Your task to perform on an android device: Search for seafood restaurants on Google Maps Image 0: 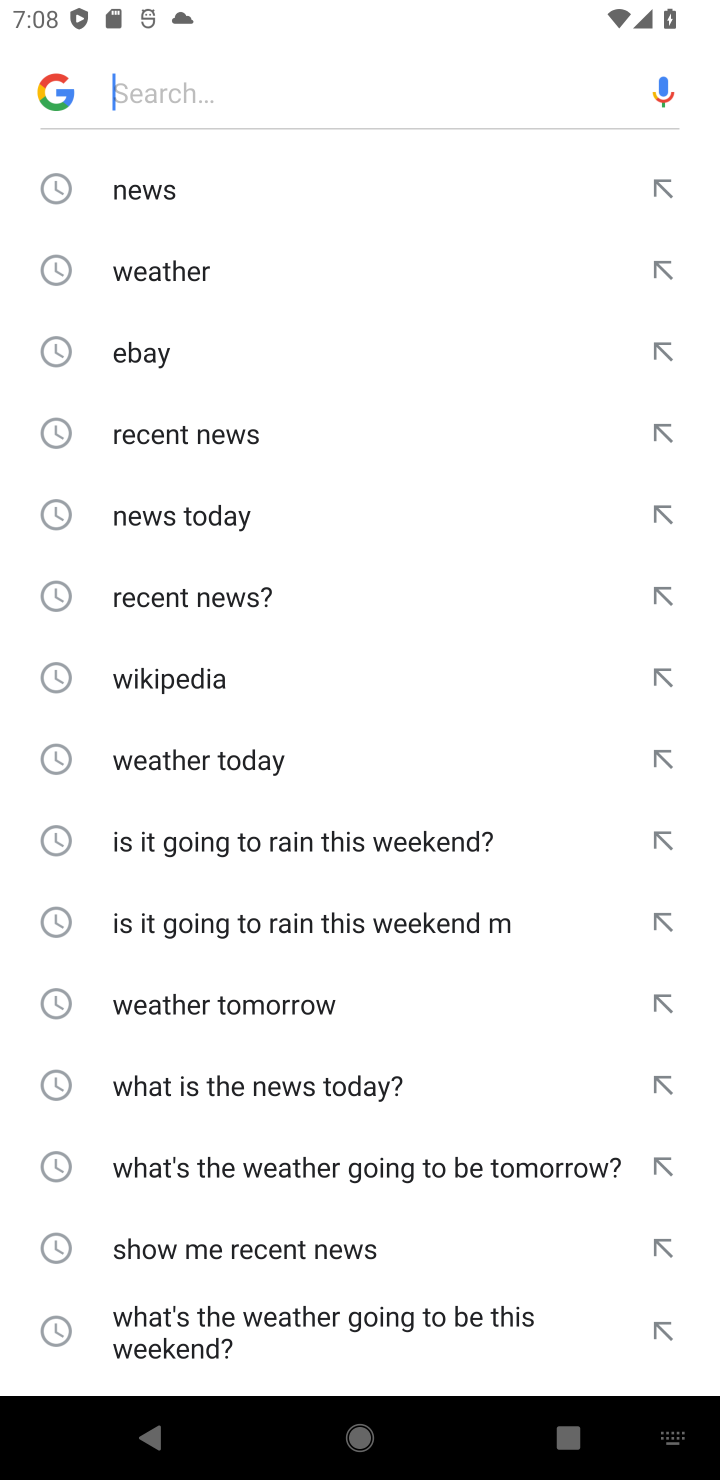
Step 0: press home button
Your task to perform on an android device: Search for seafood restaurants on Google Maps Image 1: 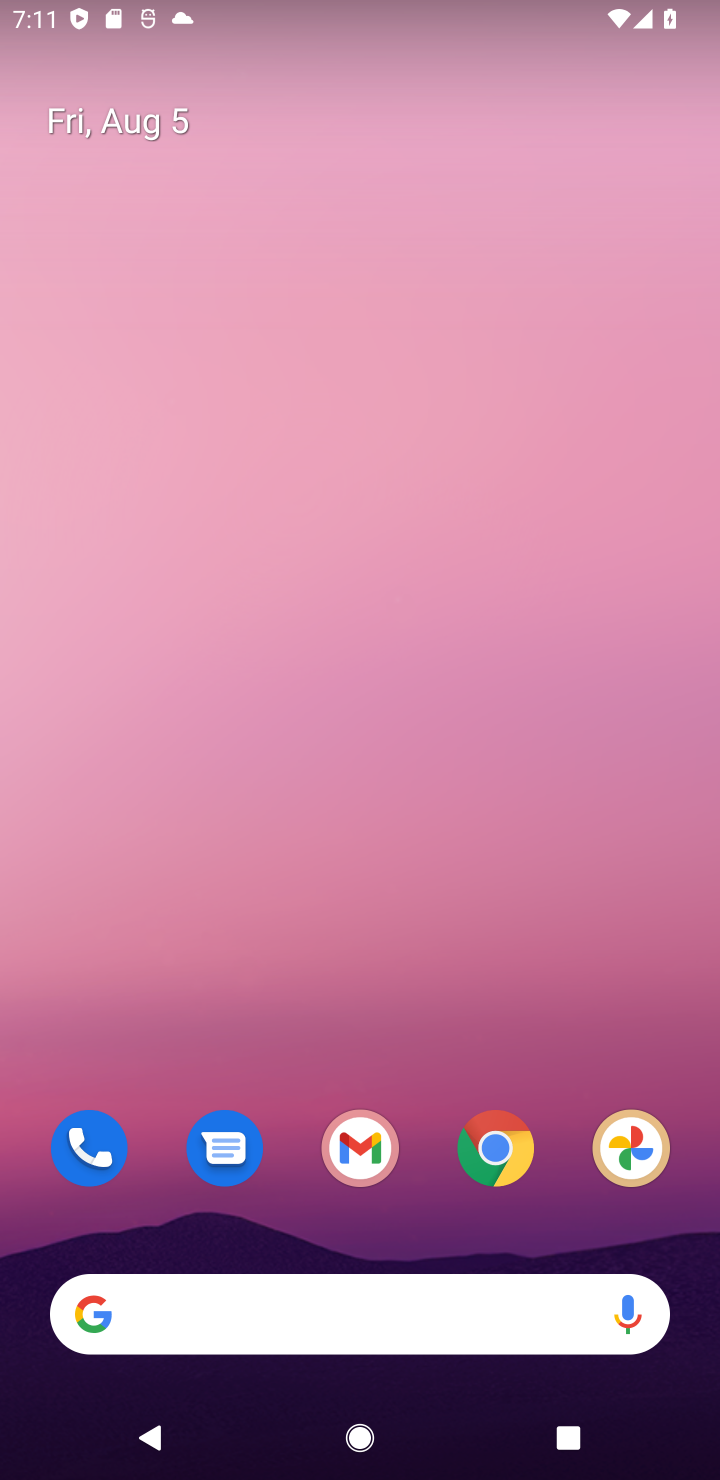
Step 1: drag from (411, 1245) to (397, 206)
Your task to perform on an android device: Search for seafood restaurants on Google Maps Image 2: 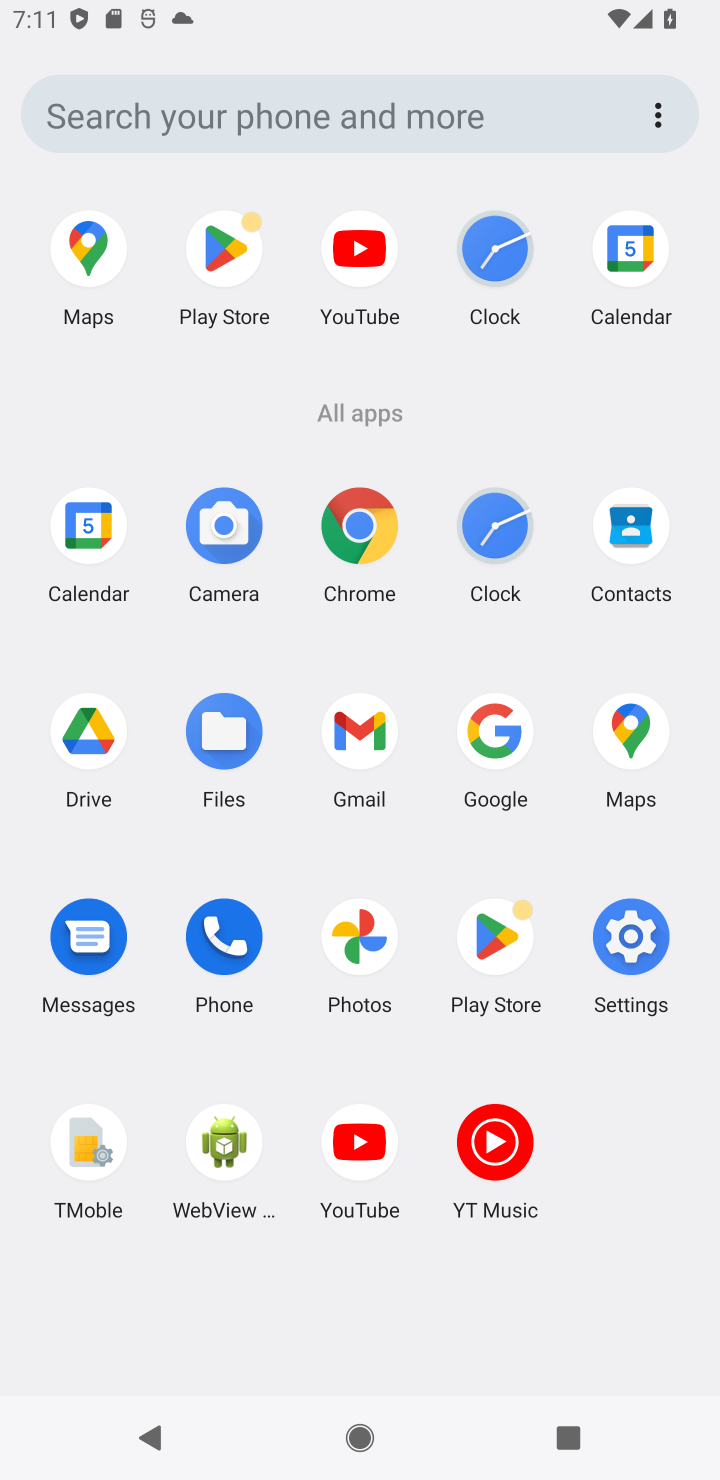
Step 2: click (106, 260)
Your task to perform on an android device: Search for seafood restaurants on Google Maps Image 3: 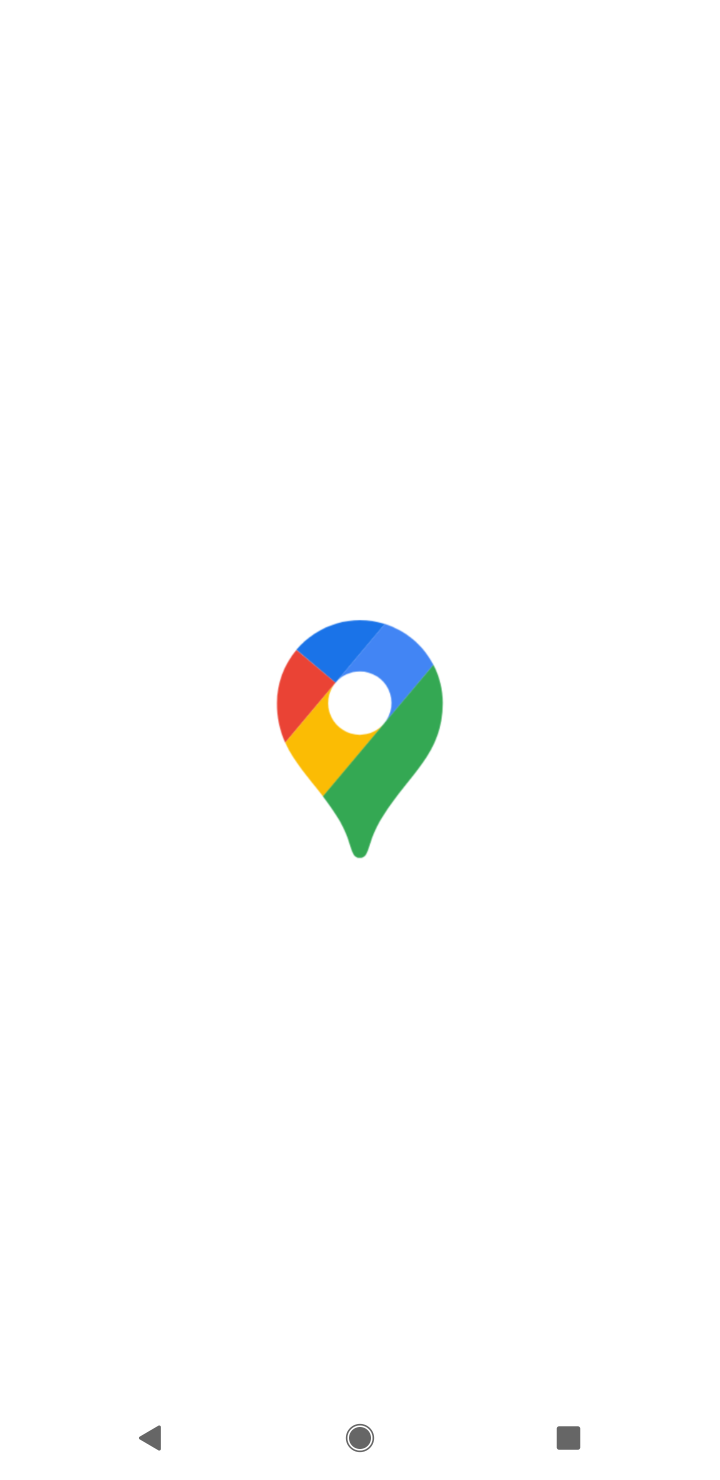
Step 3: task complete